Your task to perform on an android device: Show me productivity apps on the Play Store Image 0: 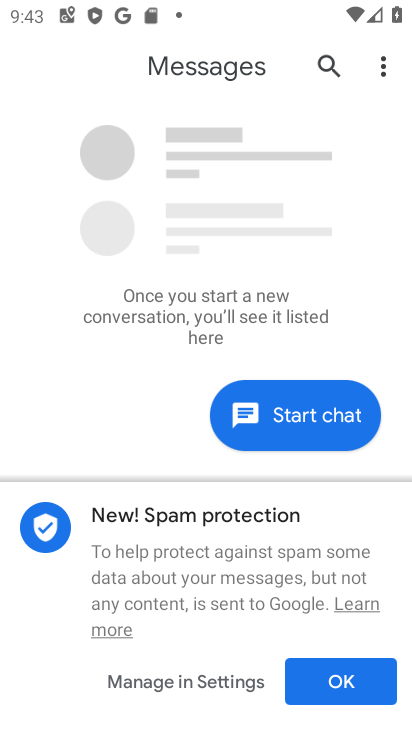
Step 0: press home button
Your task to perform on an android device: Show me productivity apps on the Play Store Image 1: 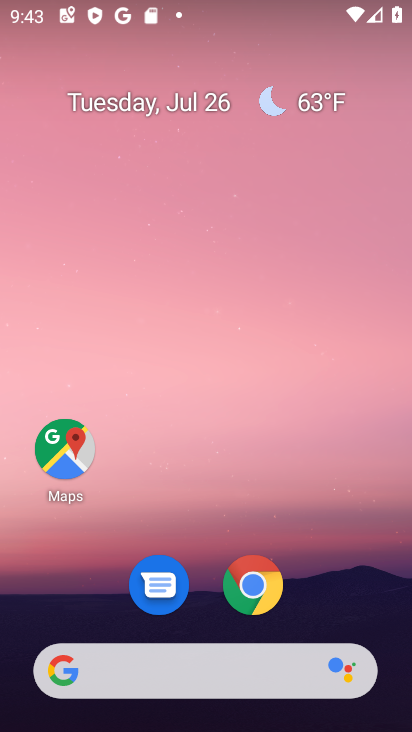
Step 1: drag from (197, 491) to (236, 1)
Your task to perform on an android device: Show me productivity apps on the Play Store Image 2: 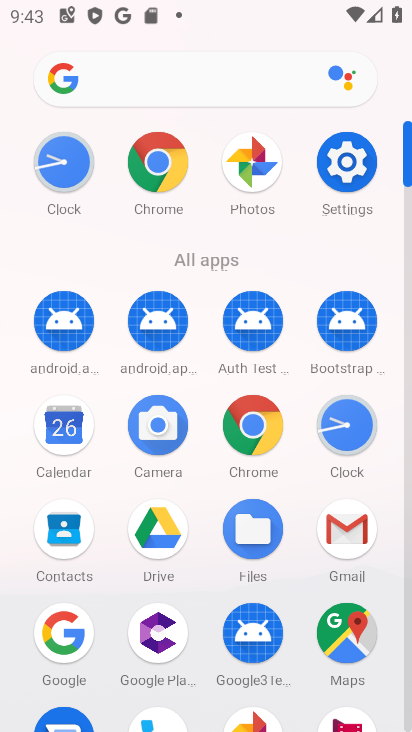
Step 2: drag from (193, 566) to (302, 122)
Your task to perform on an android device: Show me productivity apps on the Play Store Image 3: 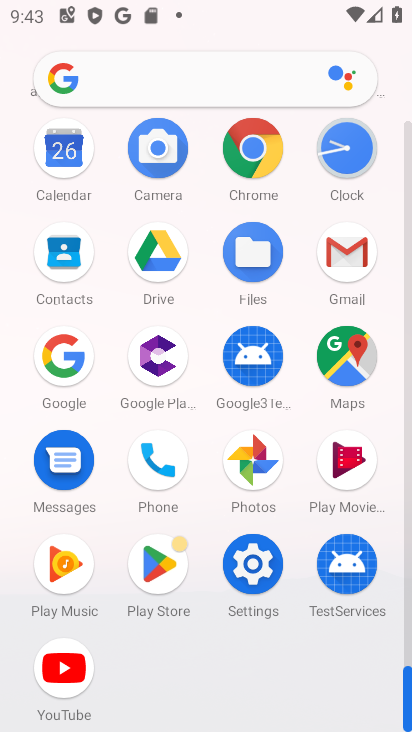
Step 3: click (172, 568)
Your task to perform on an android device: Show me productivity apps on the Play Store Image 4: 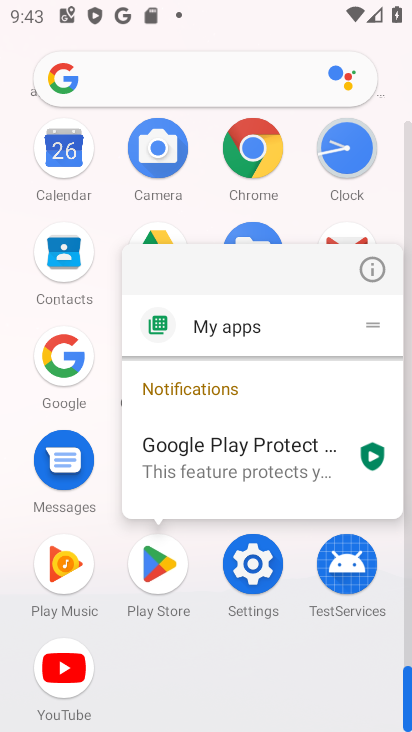
Step 4: click (172, 565)
Your task to perform on an android device: Show me productivity apps on the Play Store Image 5: 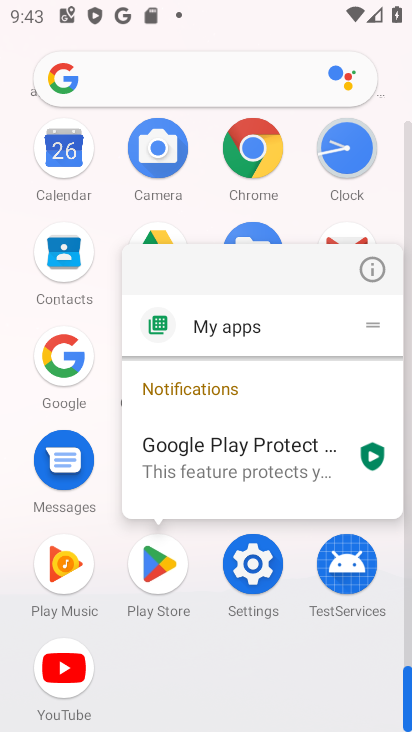
Step 5: click (172, 563)
Your task to perform on an android device: Show me productivity apps on the Play Store Image 6: 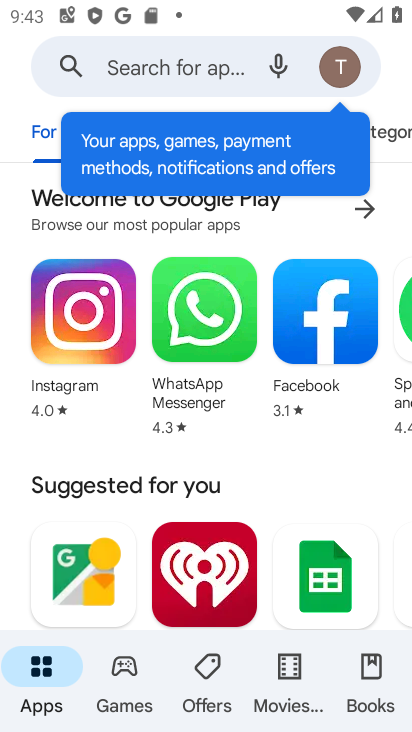
Step 6: click (127, 674)
Your task to perform on an android device: Show me productivity apps on the Play Store Image 7: 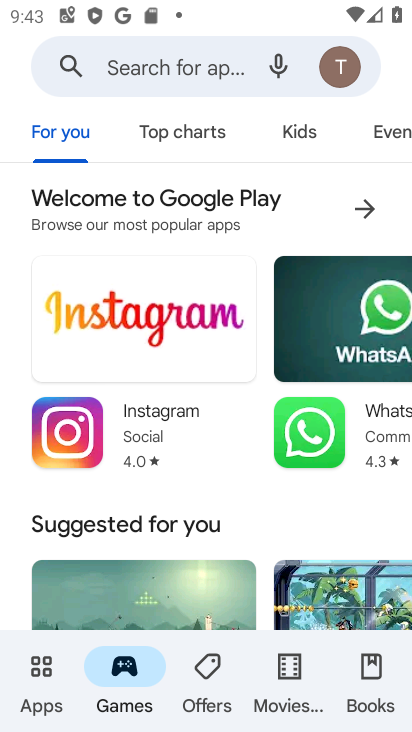
Step 7: click (35, 674)
Your task to perform on an android device: Show me productivity apps on the Play Store Image 8: 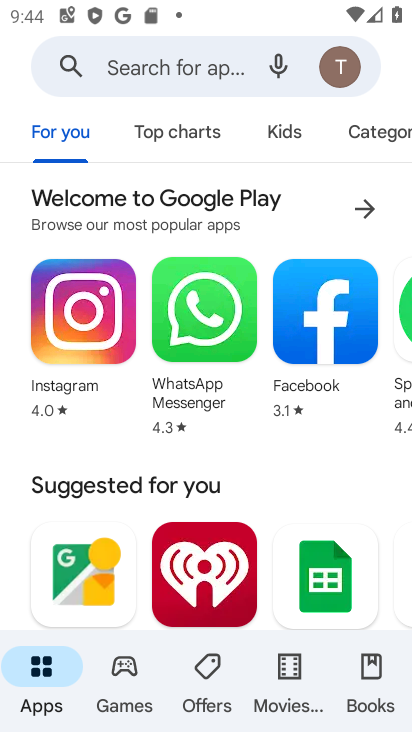
Step 8: click (350, 135)
Your task to perform on an android device: Show me productivity apps on the Play Store Image 9: 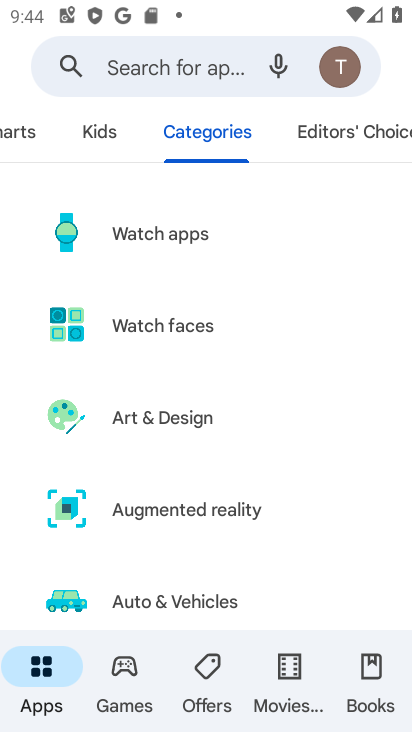
Step 9: drag from (223, 537) to (243, 0)
Your task to perform on an android device: Show me productivity apps on the Play Store Image 10: 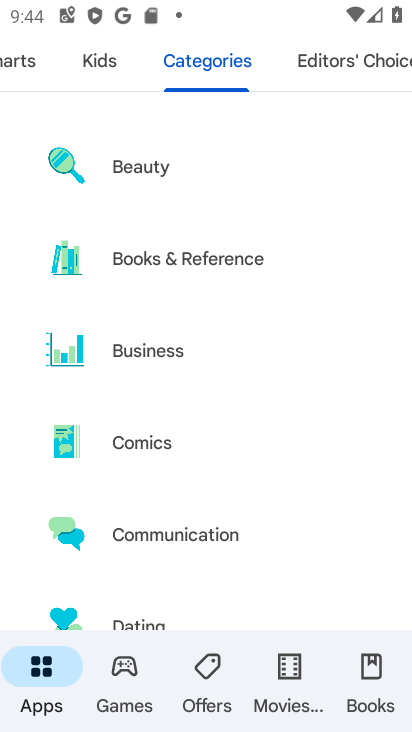
Step 10: drag from (157, 569) to (164, 60)
Your task to perform on an android device: Show me productivity apps on the Play Store Image 11: 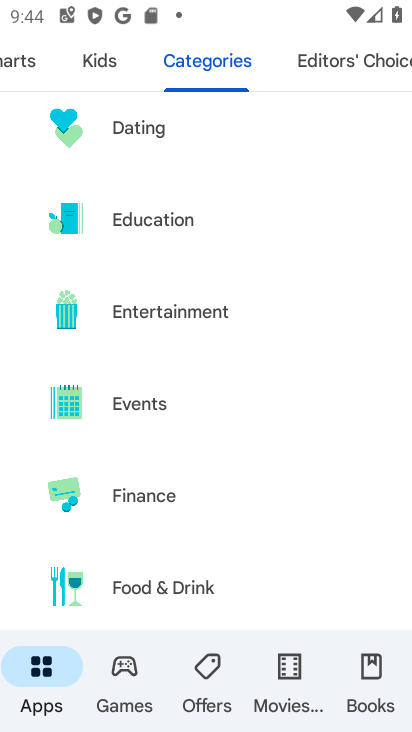
Step 11: drag from (164, 537) to (202, 120)
Your task to perform on an android device: Show me productivity apps on the Play Store Image 12: 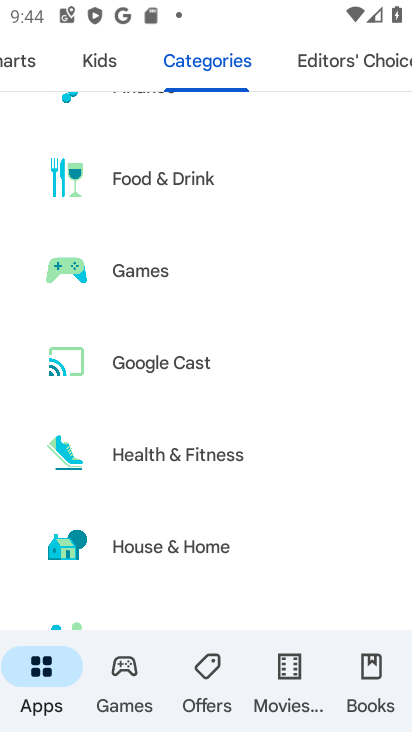
Step 12: drag from (234, 512) to (261, 142)
Your task to perform on an android device: Show me productivity apps on the Play Store Image 13: 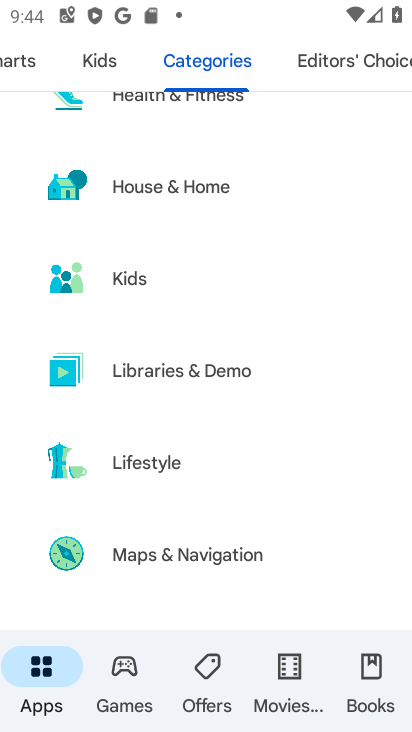
Step 13: drag from (219, 521) to (223, 154)
Your task to perform on an android device: Show me productivity apps on the Play Store Image 14: 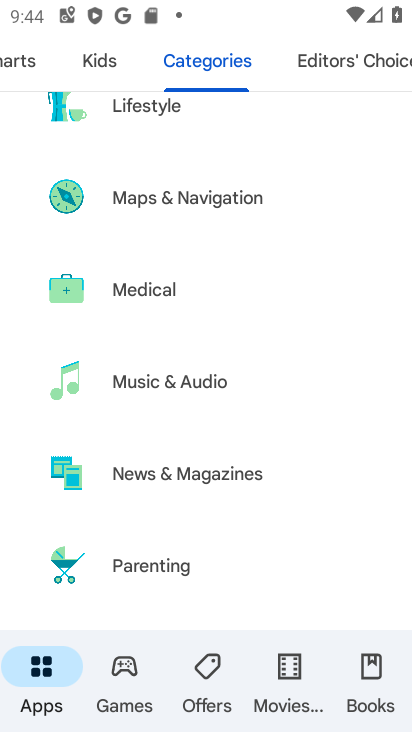
Step 14: drag from (201, 517) to (198, 224)
Your task to perform on an android device: Show me productivity apps on the Play Store Image 15: 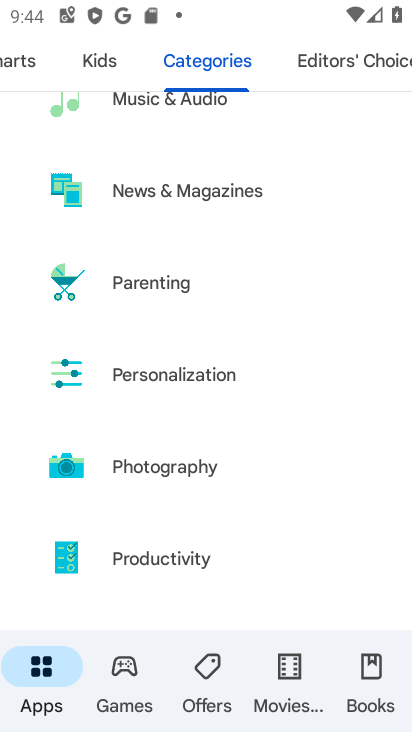
Step 15: click (191, 549)
Your task to perform on an android device: Show me productivity apps on the Play Store Image 16: 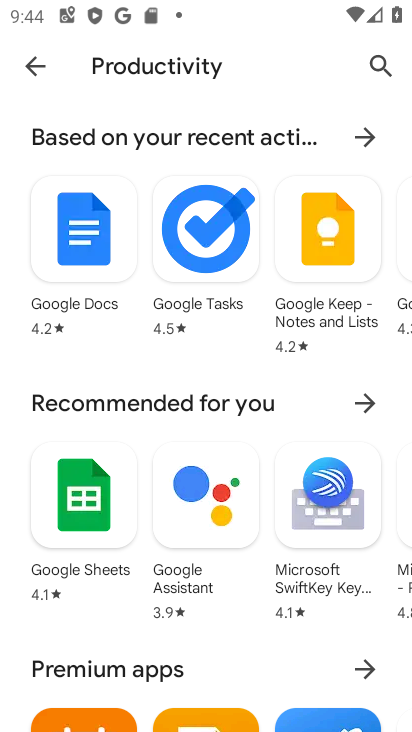
Step 16: task complete